Your task to perform on an android device: Open the calendar and show me this week's events? Image 0: 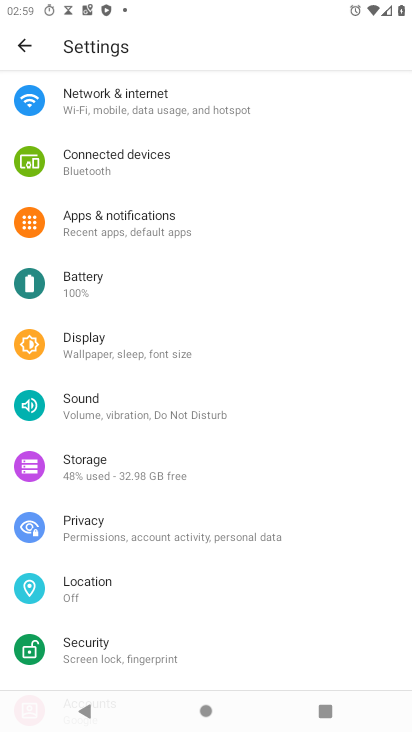
Step 0: press home button
Your task to perform on an android device: Open the calendar and show me this week's events? Image 1: 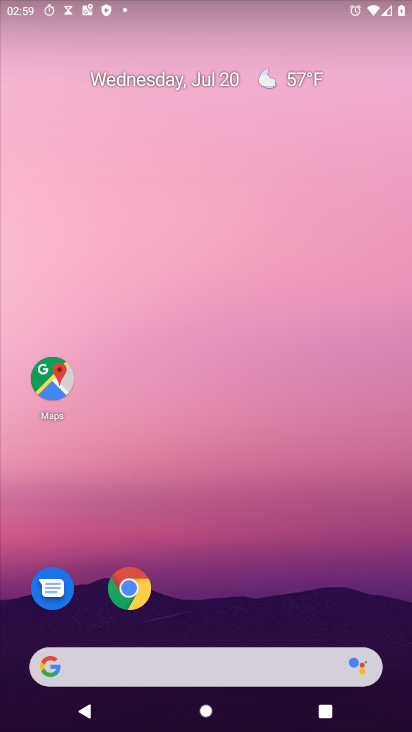
Step 1: drag from (241, 656) to (283, 23)
Your task to perform on an android device: Open the calendar and show me this week's events? Image 2: 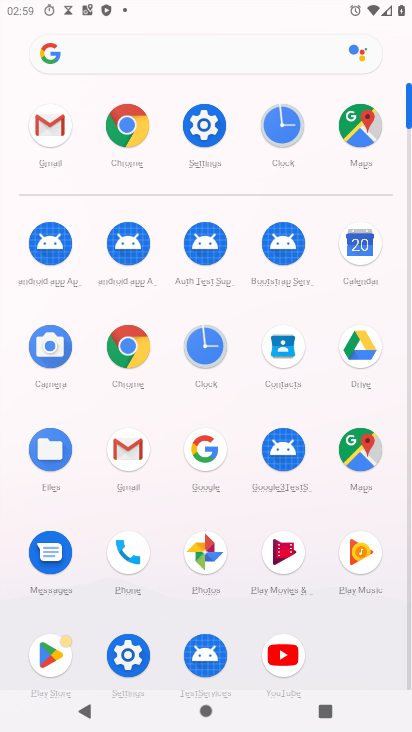
Step 2: click (369, 255)
Your task to perform on an android device: Open the calendar and show me this week's events? Image 3: 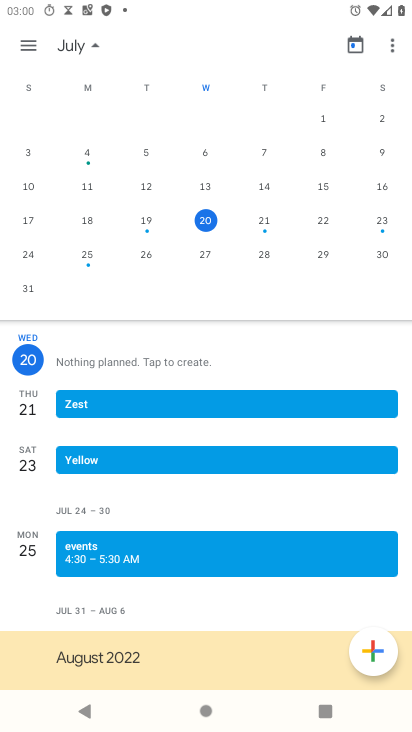
Step 3: click (28, 41)
Your task to perform on an android device: Open the calendar and show me this week's events? Image 4: 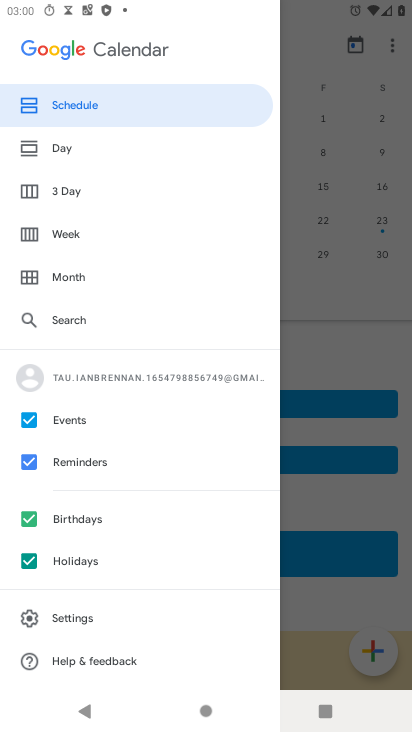
Step 4: click (88, 243)
Your task to perform on an android device: Open the calendar and show me this week's events? Image 5: 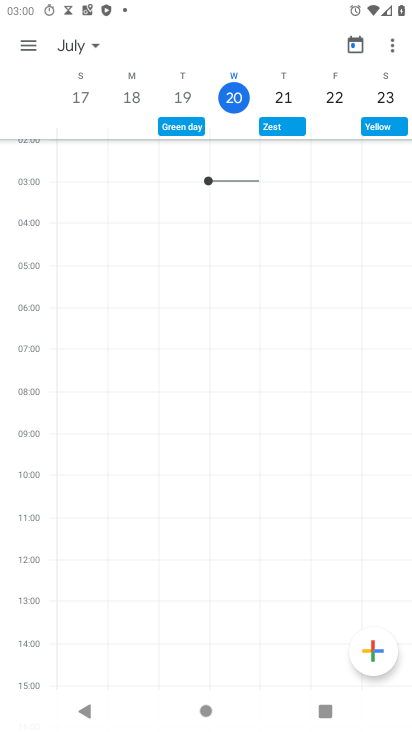
Step 5: task complete